Your task to perform on an android device: Open sound settings Image 0: 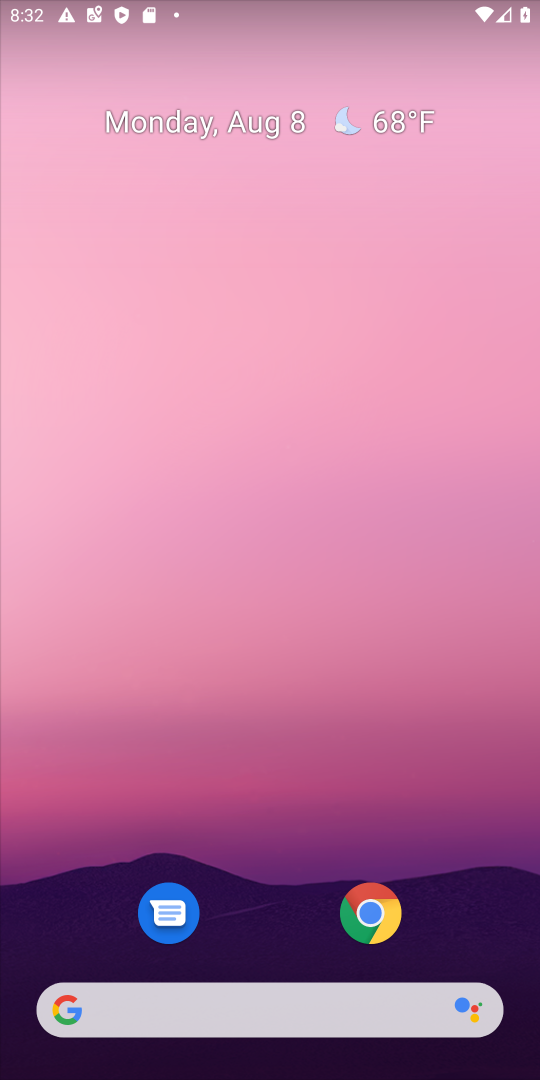
Step 0: drag from (179, 1018) to (290, 244)
Your task to perform on an android device: Open sound settings Image 1: 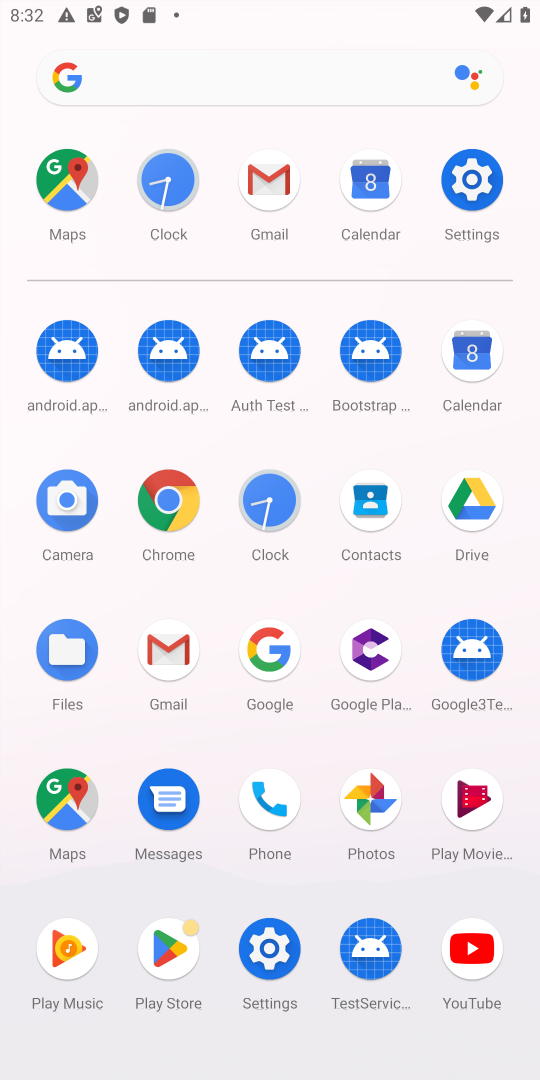
Step 1: click (472, 179)
Your task to perform on an android device: Open sound settings Image 2: 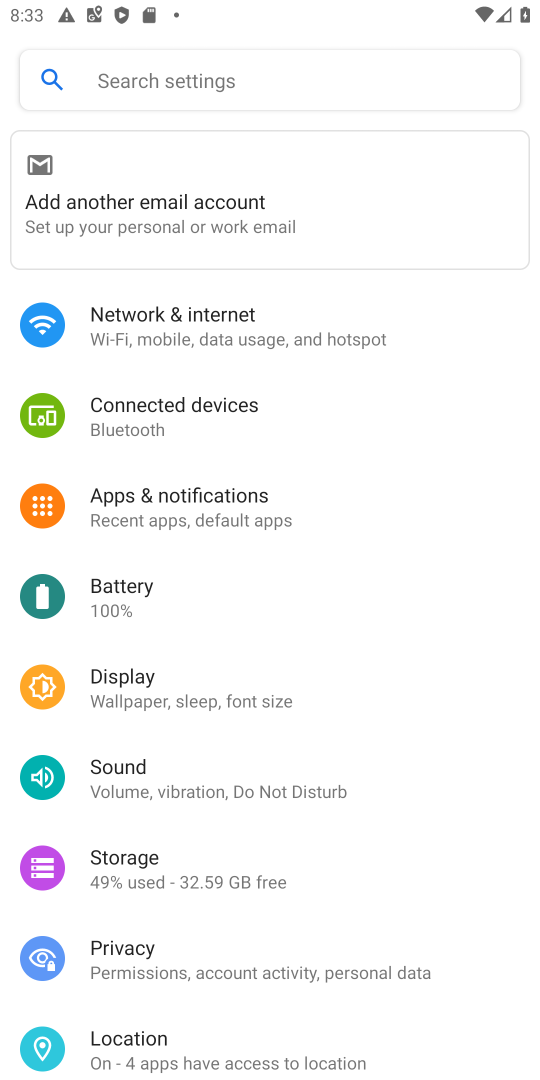
Step 2: click (147, 778)
Your task to perform on an android device: Open sound settings Image 3: 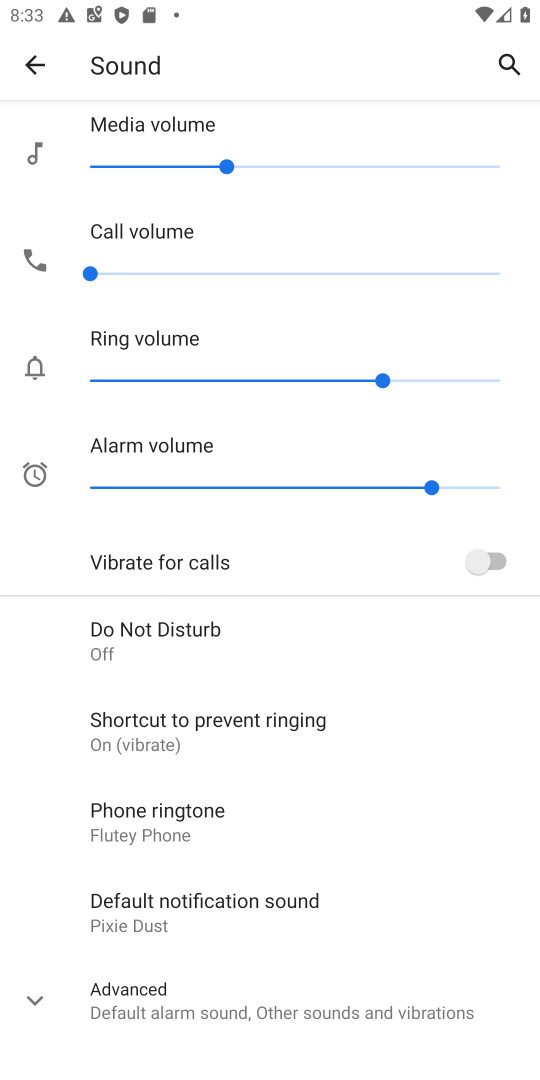
Step 3: task complete